Your task to perform on an android device: Go to Amazon Image 0: 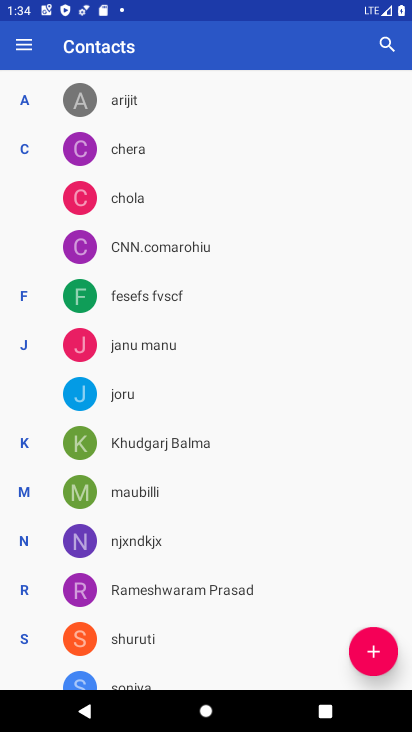
Step 0: press home button
Your task to perform on an android device: Go to Amazon Image 1: 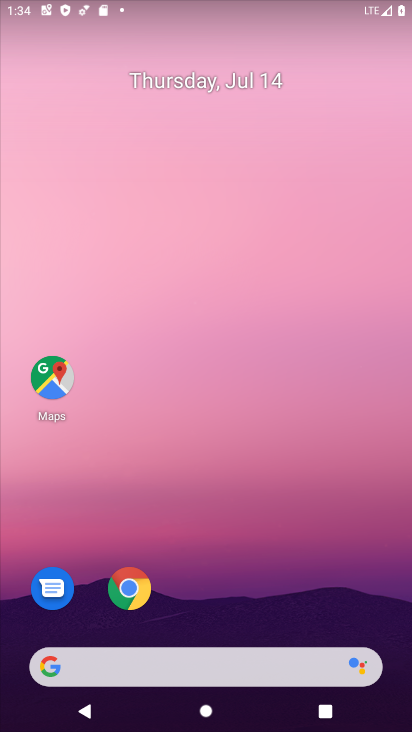
Step 1: click (134, 578)
Your task to perform on an android device: Go to Amazon Image 2: 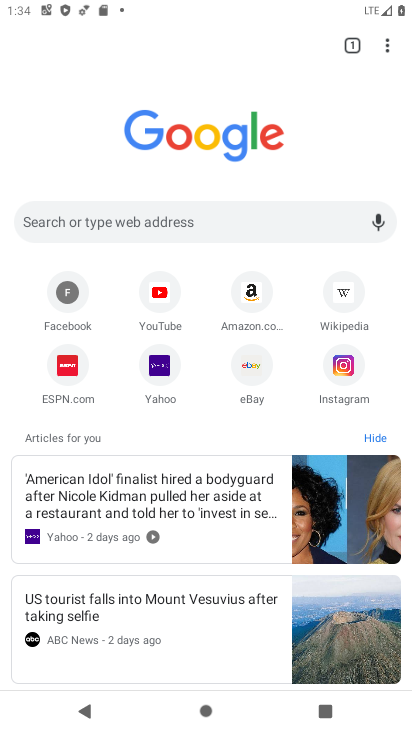
Step 2: click (245, 295)
Your task to perform on an android device: Go to Amazon Image 3: 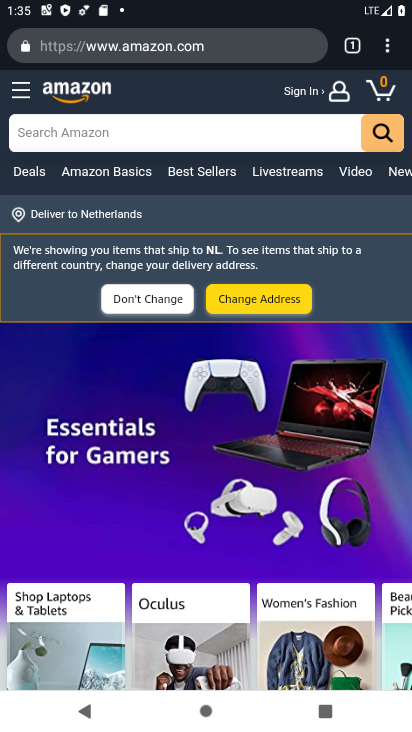
Step 3: task complete